Your task to perform on an android device: delete the emails in spam in the gmail app Image 0: 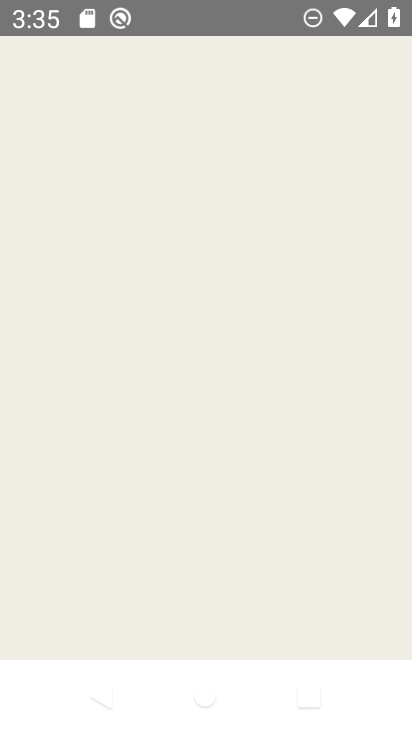
Step 0: click (317, 96)
Your task to perform on an android device: delete the emails in spam in the gmail app Image 1: 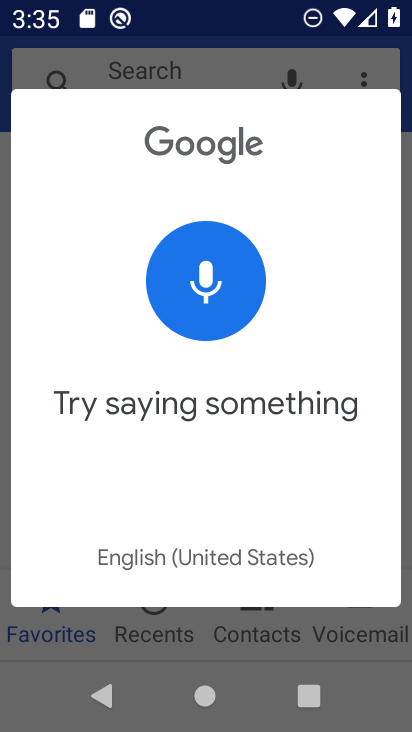
Step 1: press home button
Your task to perform on an android device: delete the emails in spam in the gmail app Image 2: 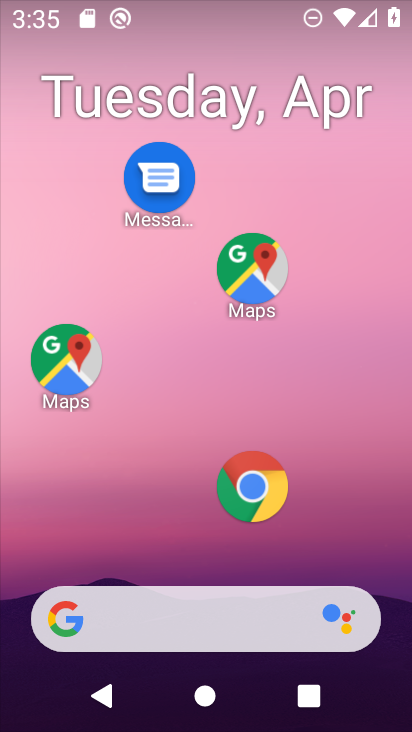
Step 2: drag from (191, 571) to (211, 150)
Your task to perform on an android device: delete the emails in spam in the gmail app Image 3: 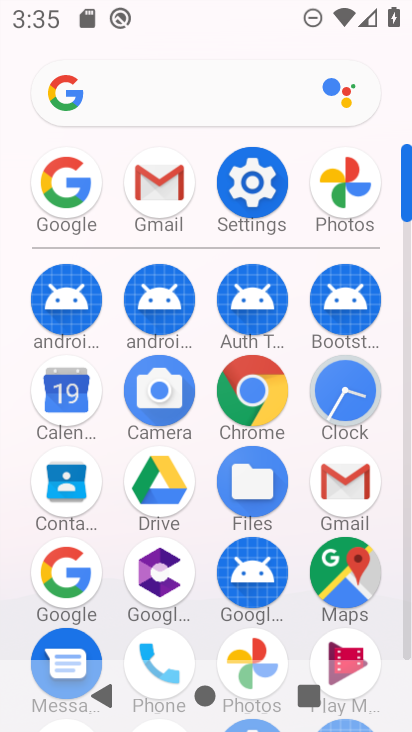
Step 3: click (351, 493)
Your task to perform on an android device: delete the emails in spam in the gmail app Image 4: 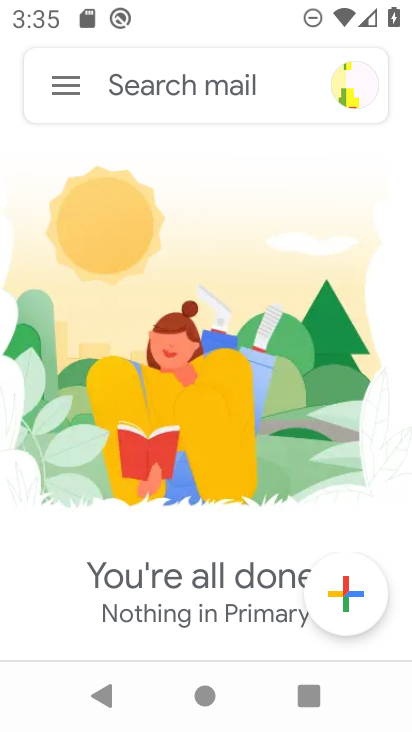
Step 4: click (81, 99)
Your task to perform on an android device: delete the emails in spam in the gmail app Image 5: 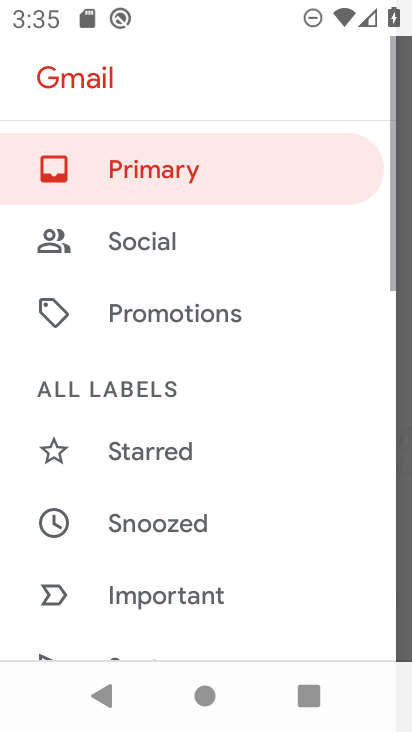
Step 5: drag from (203, 479) to (244, 168)
Your task to perform on an android device: delete the emails in spam in the gmail app Image 6: 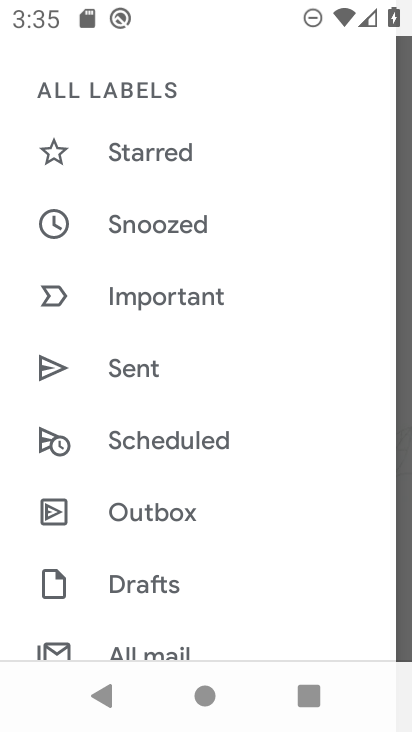
Step 6: drag from (202, 581) to (214, 454)
Your task to perform on an android device: delete the emails in spam in the gmail app Image 7: 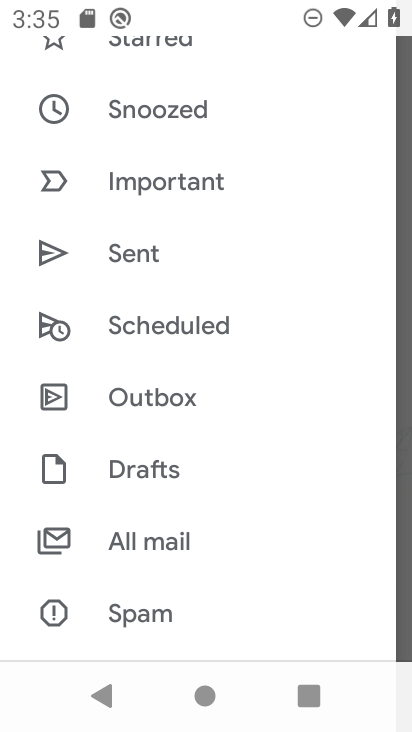
Step 7: click (185, 611)
Your task to perform on an android device: delete the emails in spam in the gmail app Image 8: 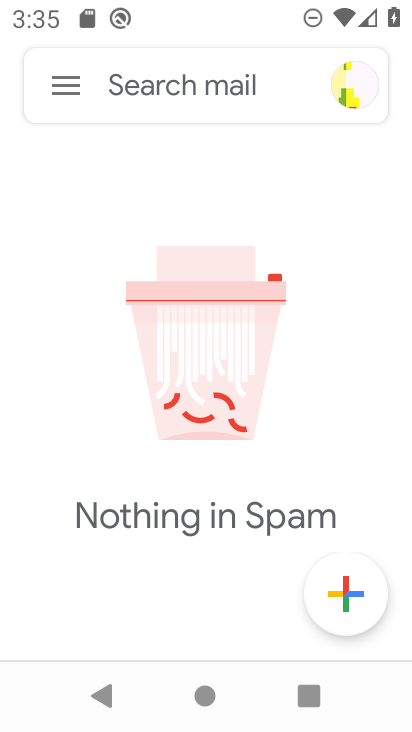
Step 8: task complete